Your task to perform on an android device: Empty the shopping cart on bestbuy.com. Search for "dell alienware" on bestbuy.com, select the first entry, and add it to the cart. Image 0: 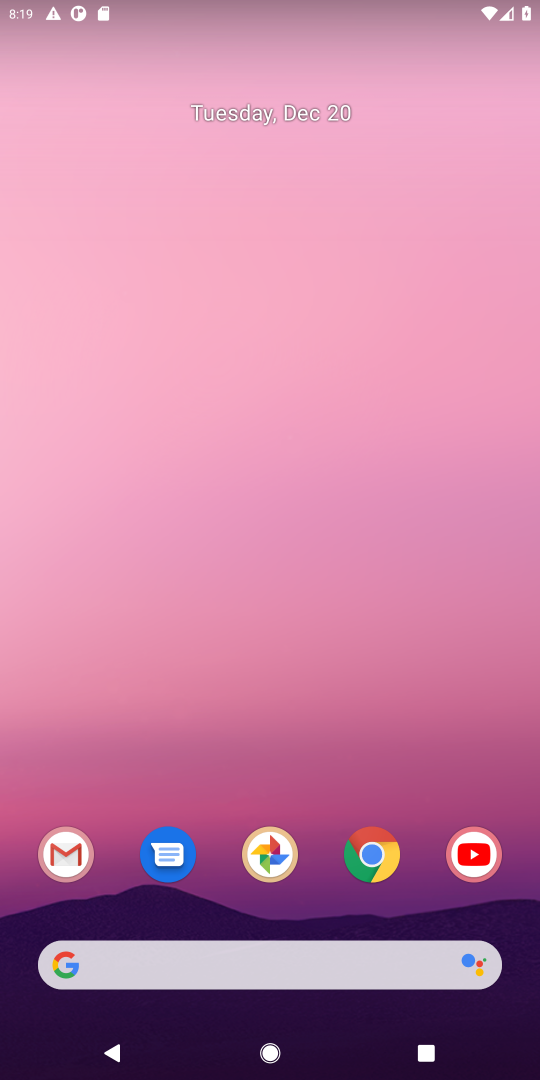
Step 0: click (365, 853)
Your task to perform on an android device: Empty the shopping cart on bestbuy.com. Search for "dell alienware" on bestbuy.com, select the first entry, and add it to the cart. Image 1: 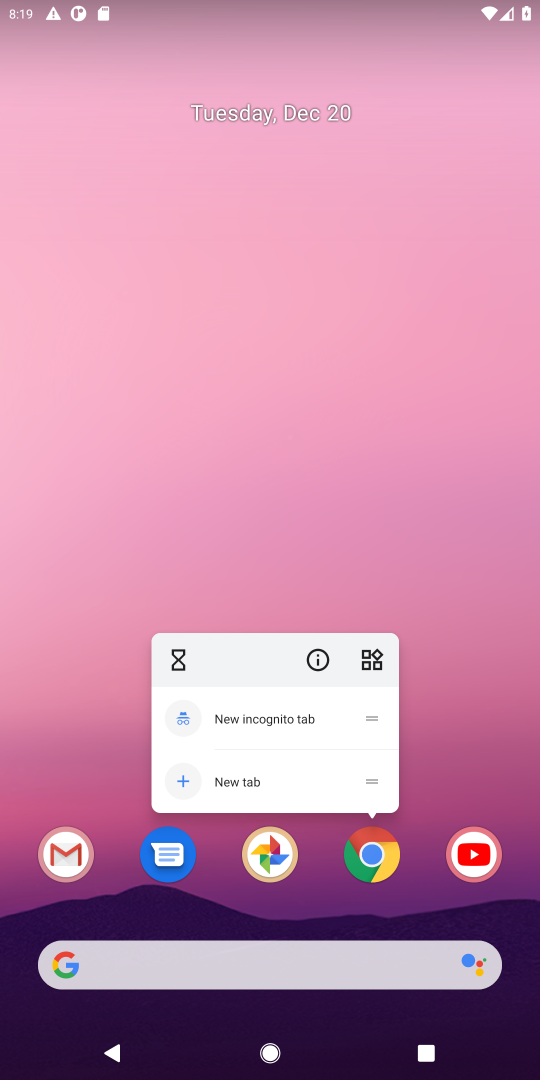
Step 1: click (381, 862)
Your task to perform on an android device: Empty the shopping cart on bestbuy.com. Search for "dell alienware" on bestbuy.com, select the first entry, and add it to the cart. Image 2: 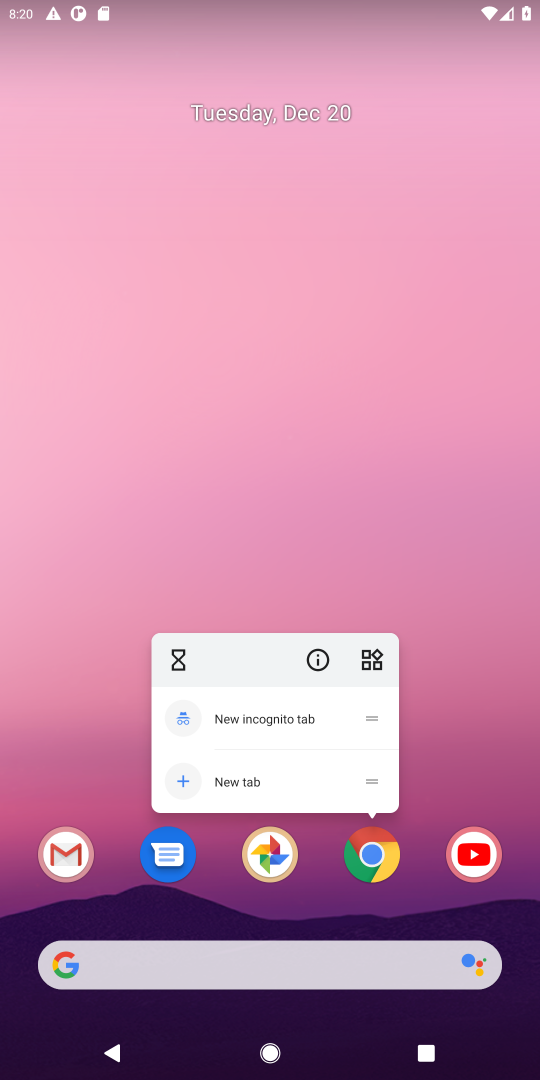
Step 2: click (365, 858)
Your task to perform on an android device: Empty the shopping cart on bestbuy.com. Search for "dell alienware" on bestbuy.com, select the first entry, and add it to the cart. Image 3: 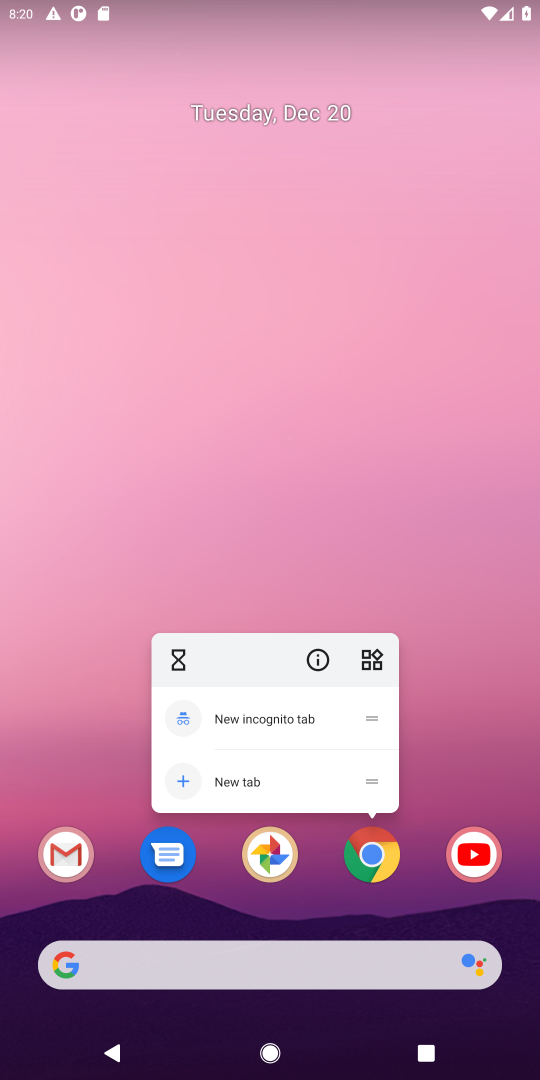
Step 3: click (378, 859)
Your task to perform on an android device: Empty the shopping cart on bestbuy.com. Search for "dell alienware" on bestbuy.com, select the first entry, and add it to the cart. Image 4: 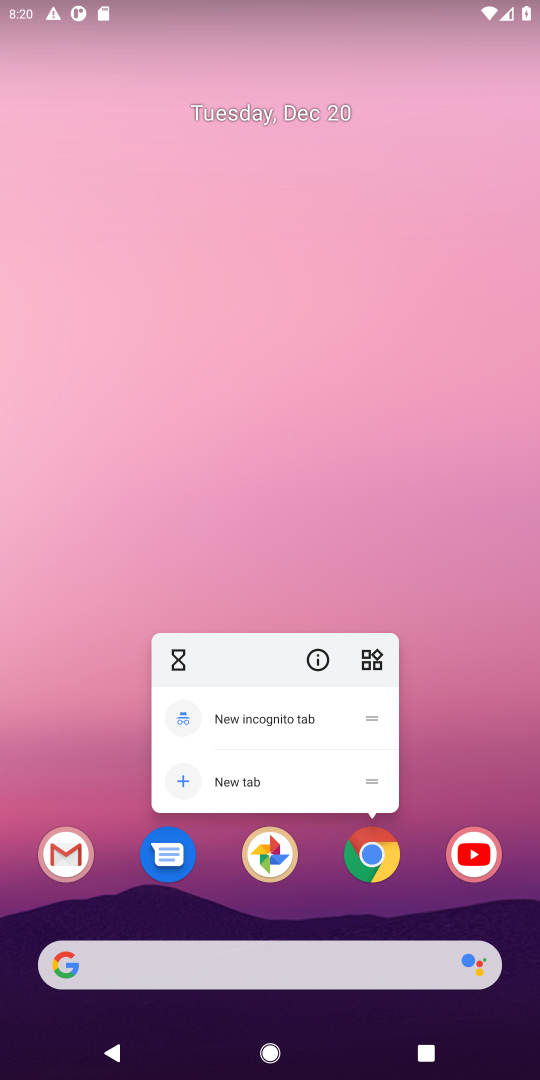
Step 4: click (378, 859)
Your task to perform on an android device: Empty the shopping cart on bestbuy.com. Search for "dell alienware" on bestbuy.com, select the first entry, and add it to the cart. Image 5: 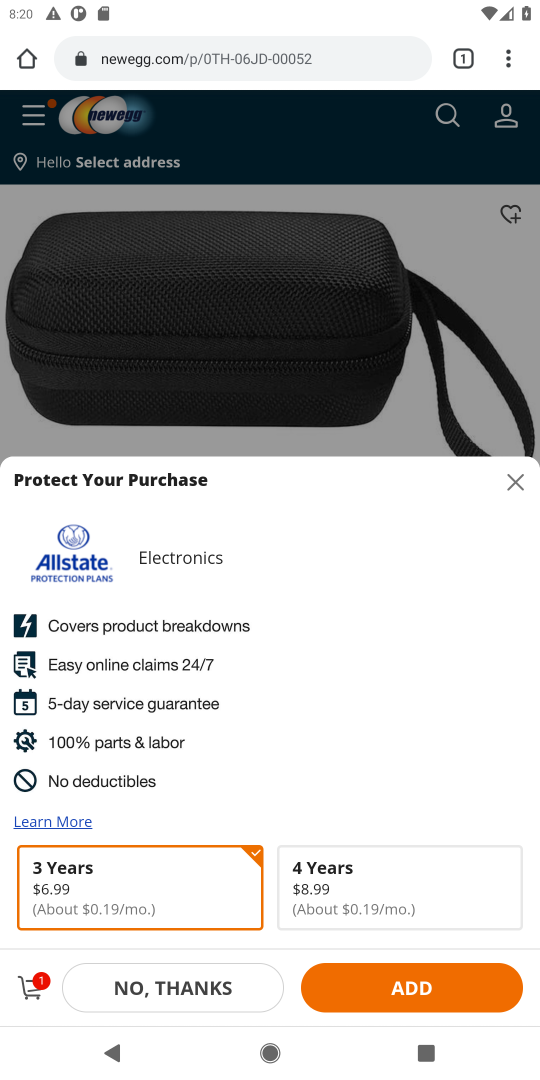
Step 5: click (137, 63)
Your task to perform on an android device: Empty the shopping cart on bestbuy.com. Search for "dell alienware" on bestbuy.com, select the first entry, and add it to the cart. Image 6: 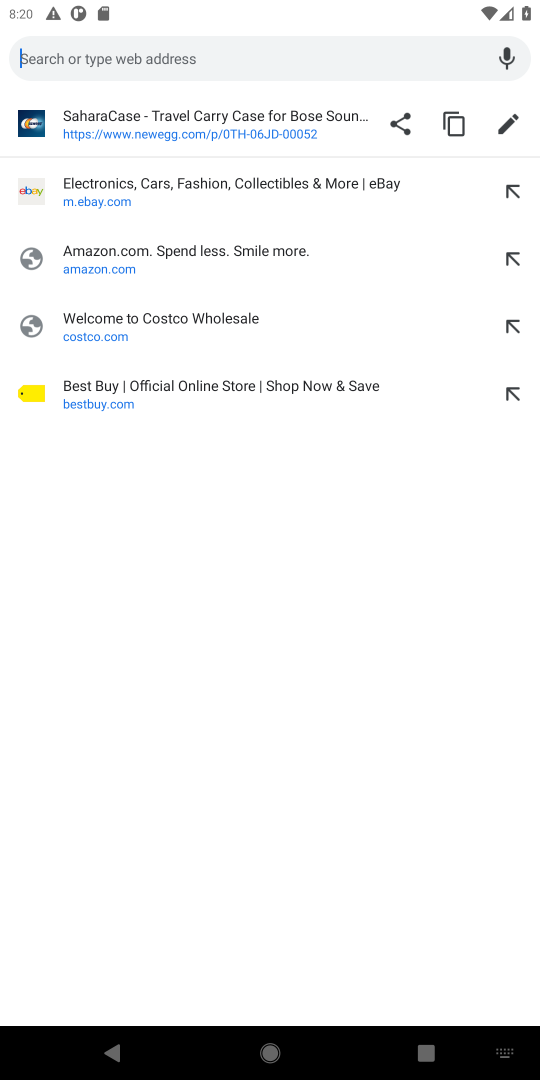
Step 6: click (104, 385)
Your task to perform on an android device: Empty the shopping cart on bestbuy.com. Search for "dell alienware" on bestbuy.com, select the first entry, and add it to the cart. Image 7: 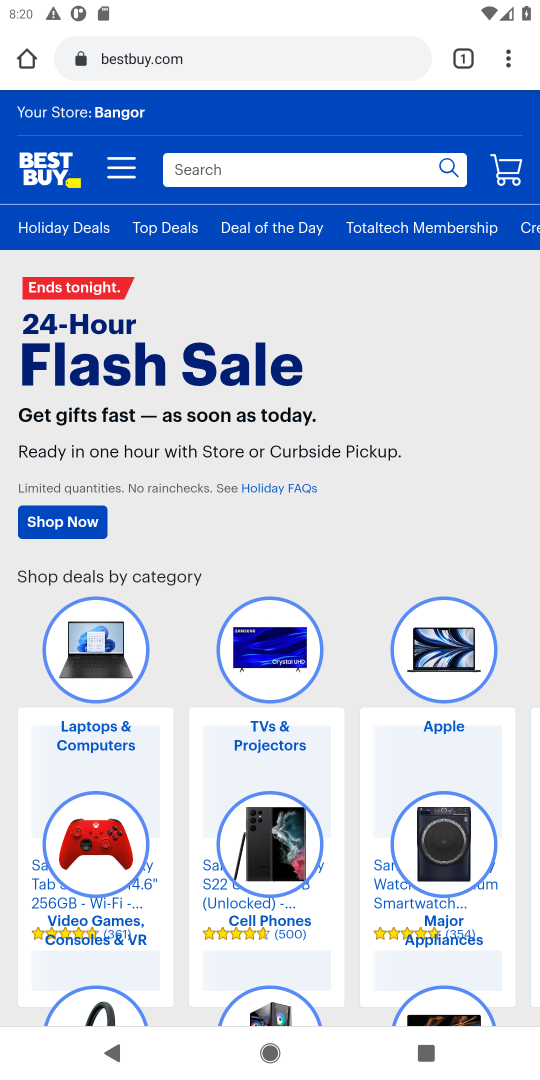
Step 7: click (502, 167)
Your task to perform on an android device: Empty the shopping cart on bestbuy.com. Search for "dell alienware" on bestbuy.com, select the first entry, and add it to the cart. Image 8: 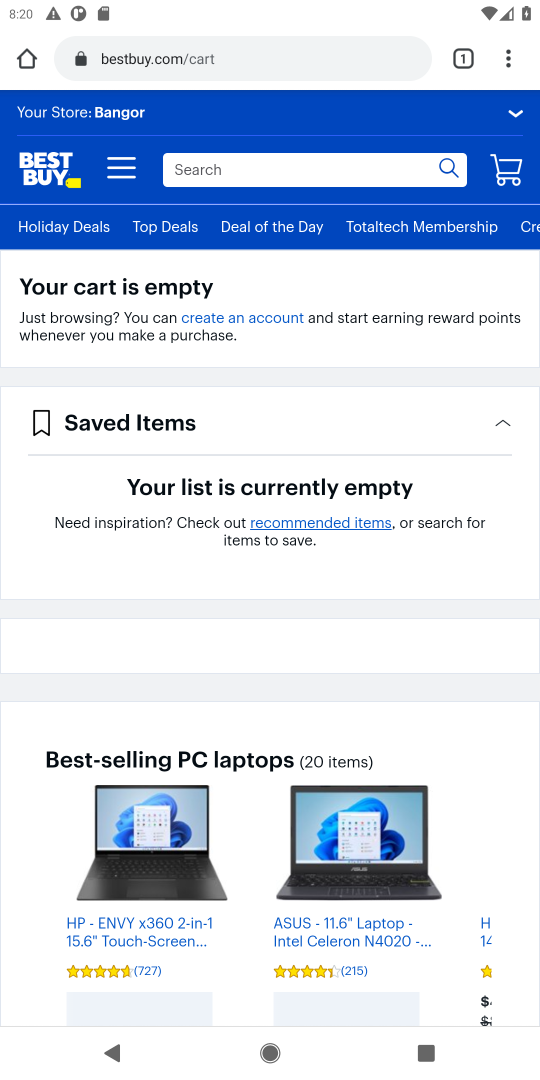
Step 8: click (237, 175)
Your task to perform on an android device: Empty the shopping cart on bestbuy.com. Search for "dell alienware" on bestbuy.com, select the first entry, and add it to the cart. Image 9: 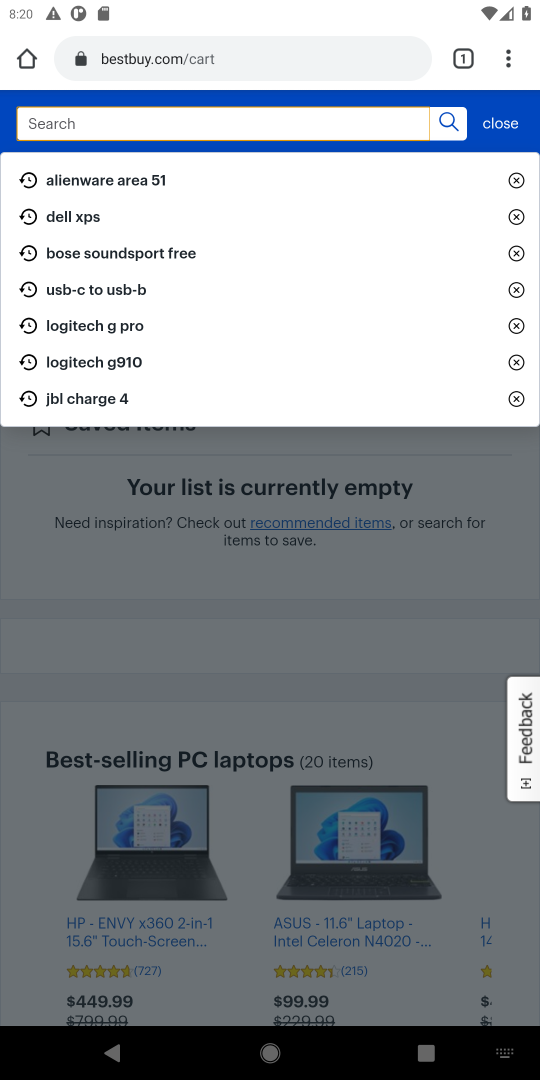
Step 9: type "dell alienware"
Your task to perform on an android device: Empty the shopping cart on bestbuy.com. Search for "dell alienware" on bestbuy.com, select the first entry, and add it to the cart. Image 10: 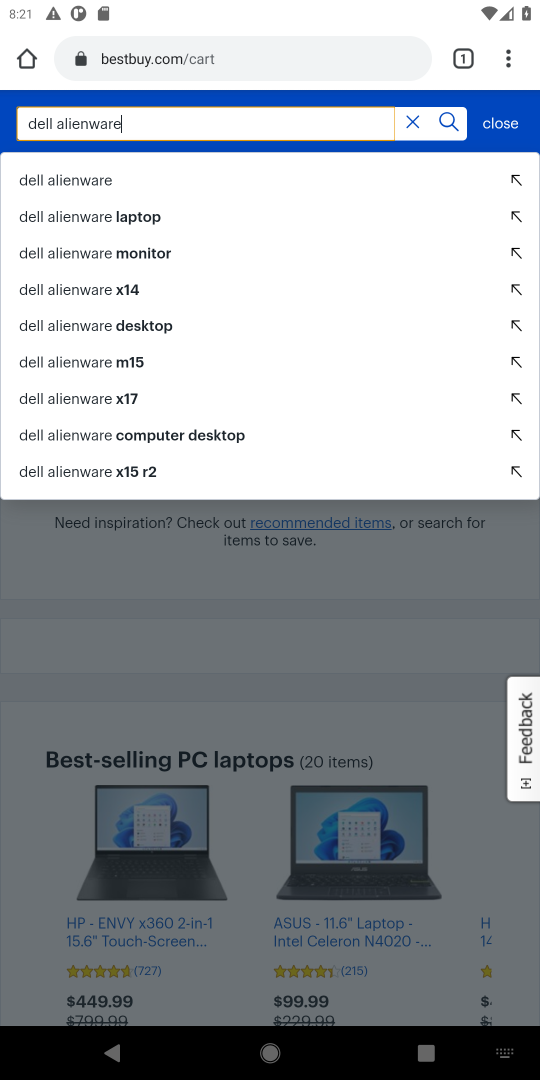
Step 10: click (69, 185)
Your task to perform on an android device: Empty the shopping cart on bestbuy.com. Search for "dell alienware" on bestbuy.com, select the first entry, and add it to the cart. Image 11: 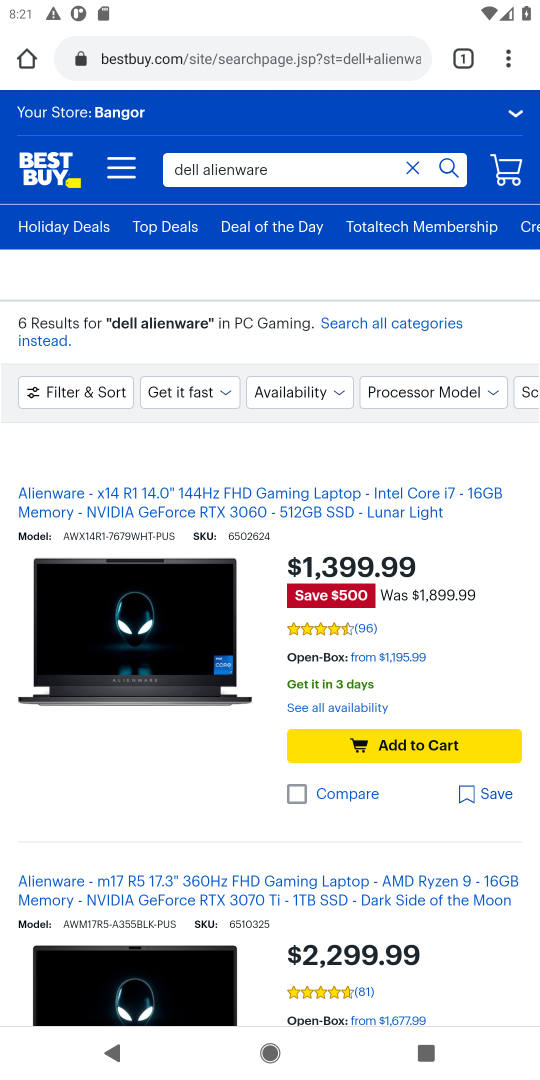
Step 11: click (377, 744)
Your task to perform on an android device: Empty the shopping cart on bestbuy.com. Search for "dell alienware" on bestbuy.com, select the first entry, and add it to the cart. Image 12: 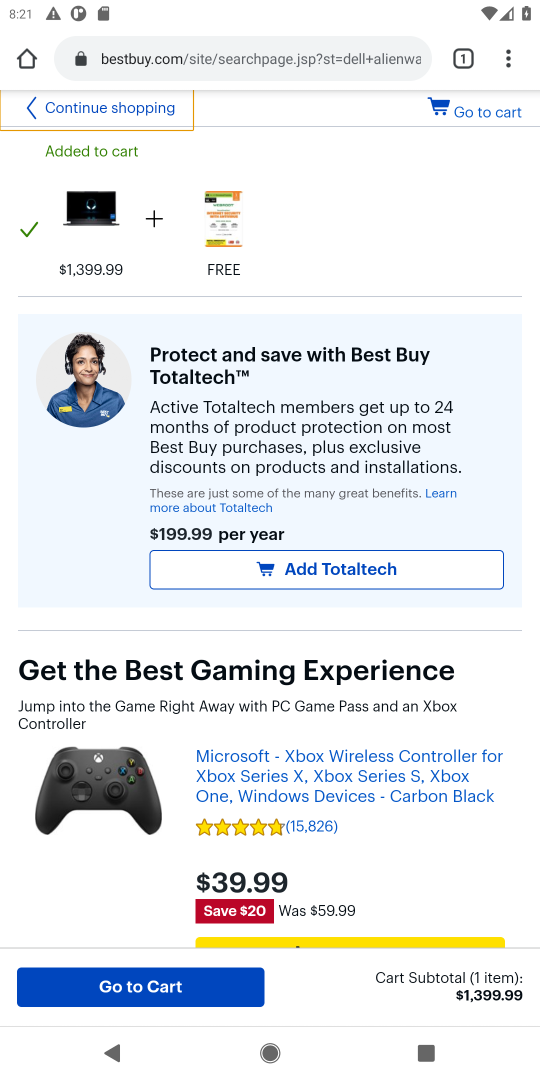
Step 12: task complete